Your task to perform on an android device: change the clock display to digital Image 0: 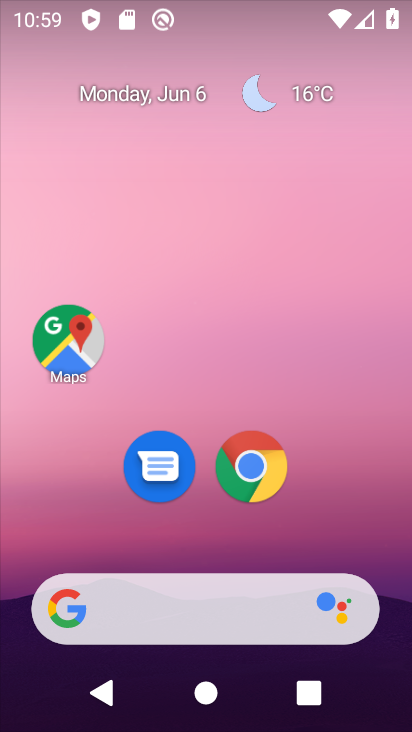
Step 0: press home button
Your task to perform on an android device: change the clock display to digital Image 1: 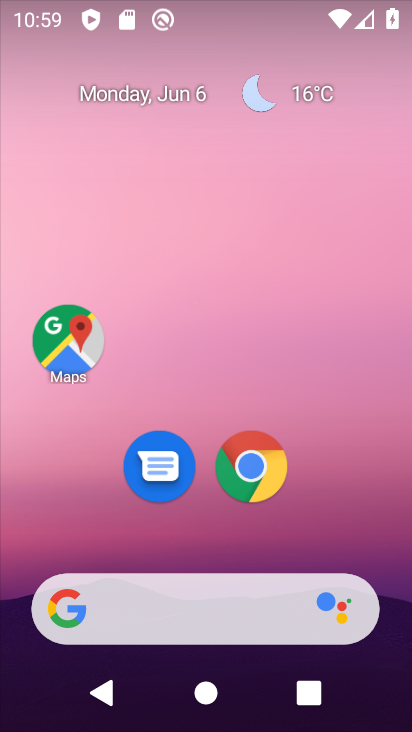
Step 1: drag from (353, 503) to (396, 161)
Your task to perform on an android device: change the clock display to digital Image 2: 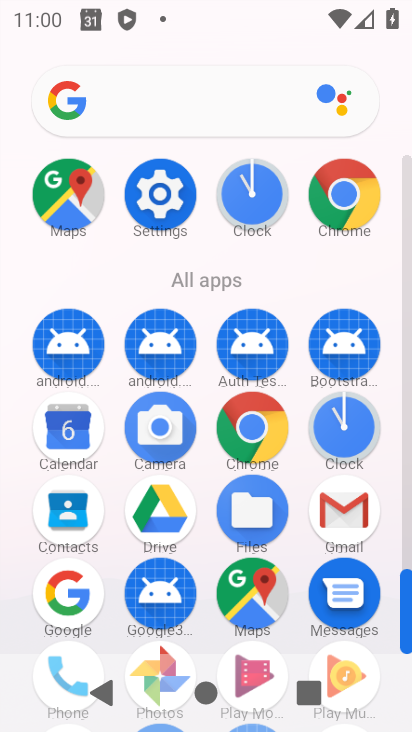
Step 2: click (343, 437)
Your task to perform on an android device: change the clock display to digital Image 3: 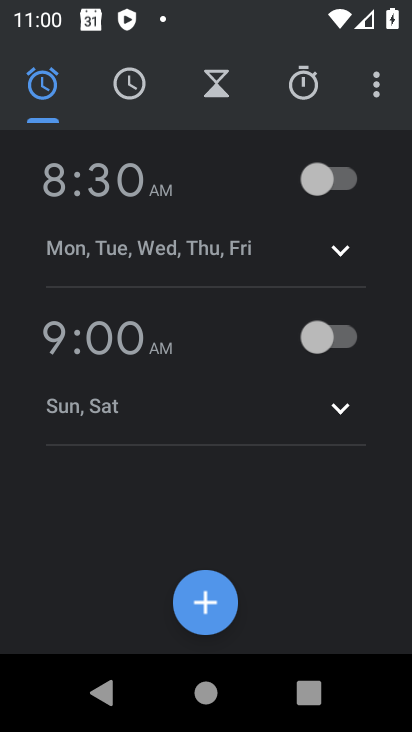
Step 3: task complete